Your task to perform on an android device: Show me the alarms in the clock app Image 0: 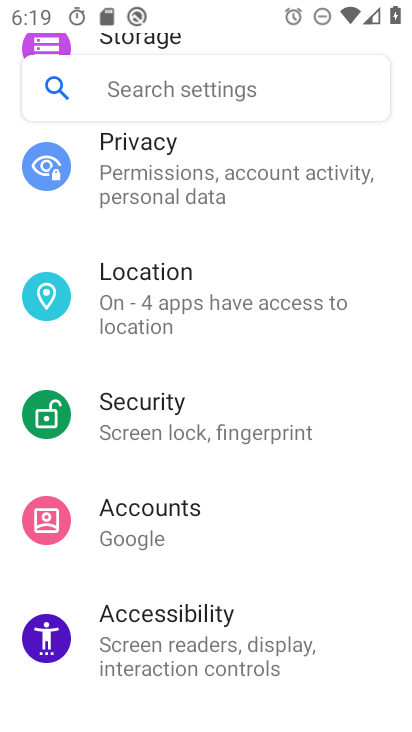
Step 0: press home button
Your task to perform on an android device: Show me the alarms in the clock app Image 1: 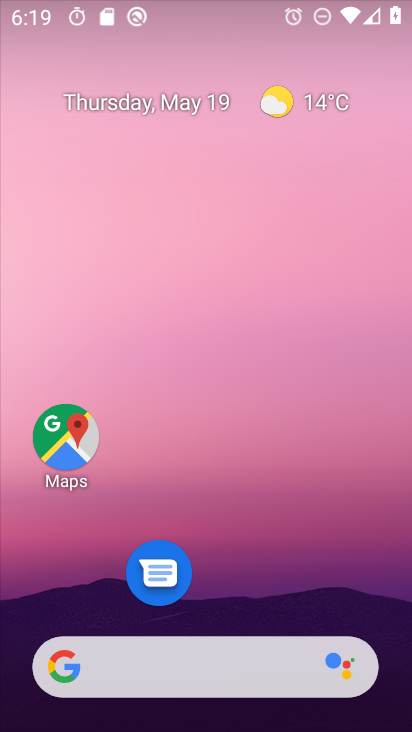
Step 1: drag from (255, 603) to (229, 82)
Your task to perform on an android device: Show me the alarms in the clock app Image 2: 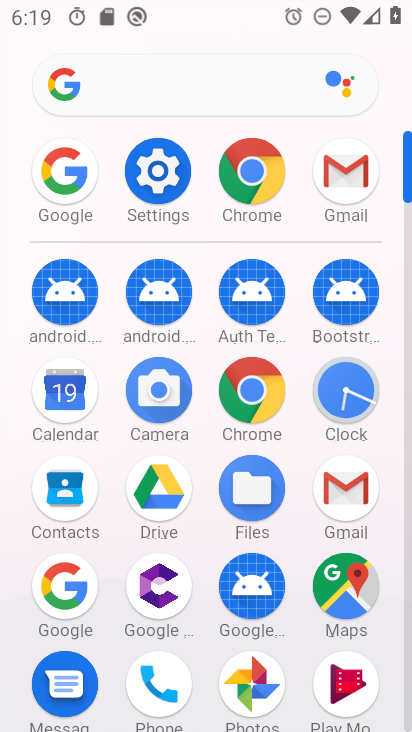
Step 2: click (346, 403)
Your task to perform on an android device: Show me the alarms in the clock app Image 3: 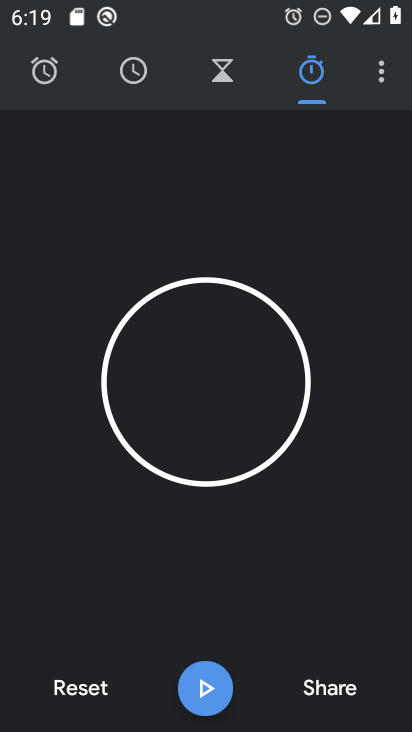
Step 3: click (44, 72)
Your task to perform on an android device: Show me the alarms in the clock app Image 4: 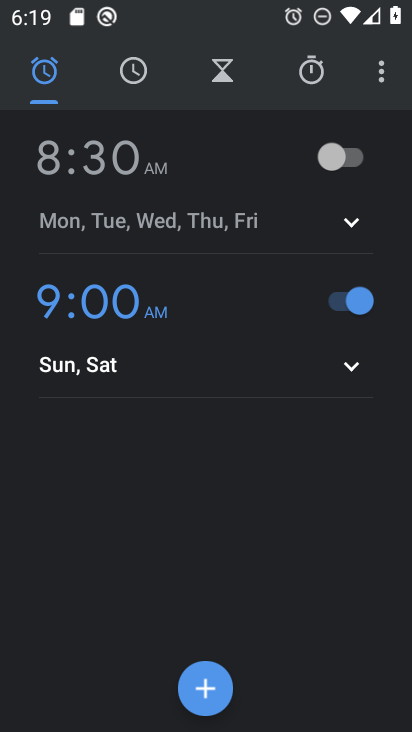
Step 4: task complete